Your task to perform on an android device: turn off sleep mode Image 0: 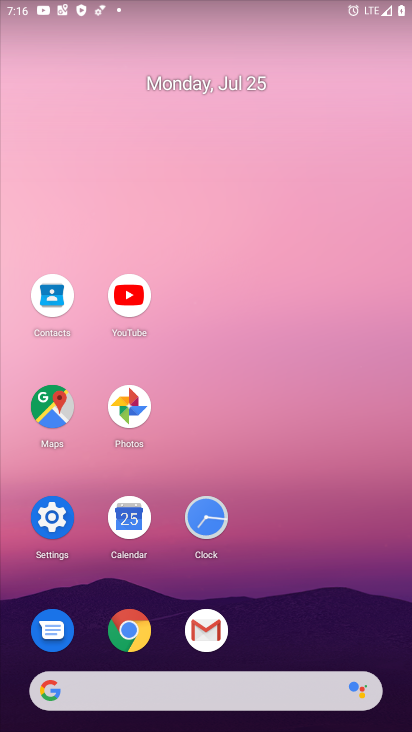
Step 0: click (39, 513)
Your task to perform on an android device: turn off sleep mode Image 1: 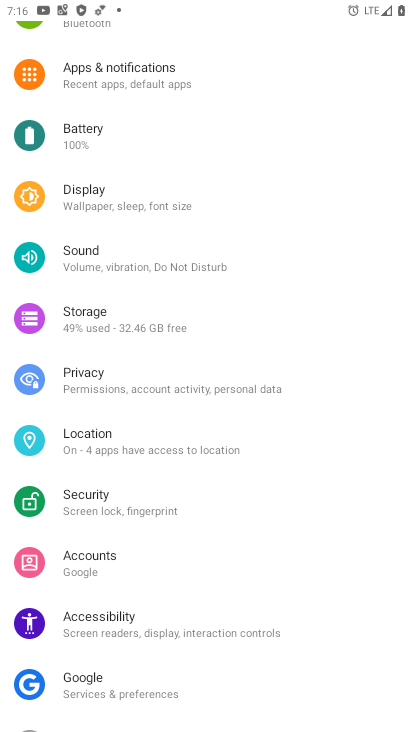
Step 1: click (91, 195)
Your task to perform on an android device: turn off sleep mode Image 2: 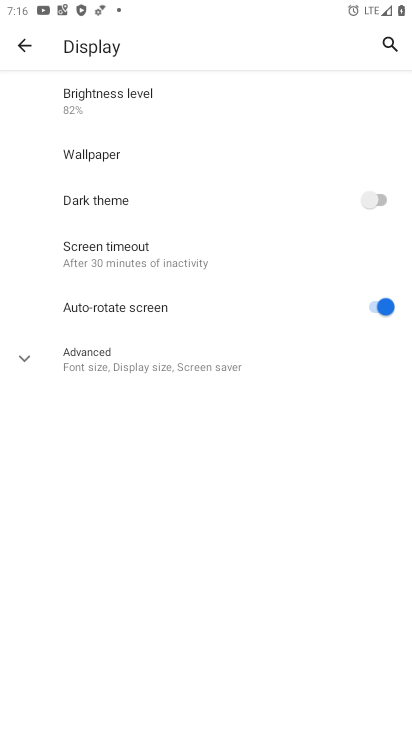
Step 2: task complete